Your task to perform on an android device: turn on sleep mode Image 0: 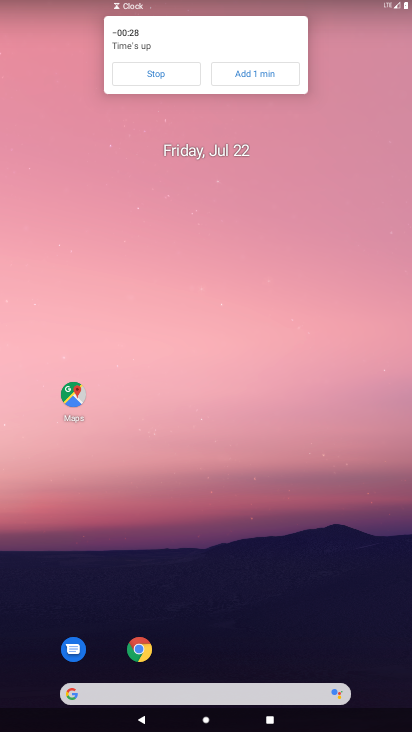
Step 0: drag from (229, 673) to (229, 161)
Your task to perform on an android device: turn on sleep mode Image 1: 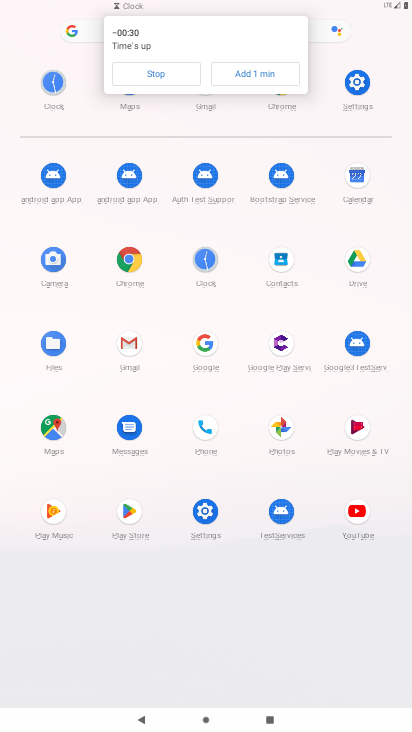
Step 1: click (362, 81)
Your task to perform on an android device: turn on sleep mode Image 2: 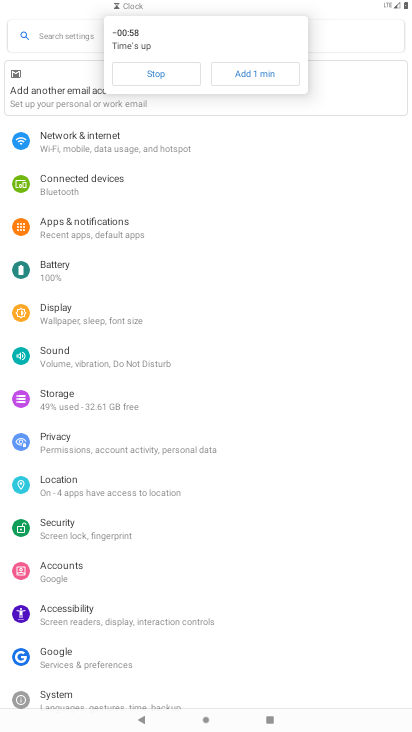
Step 2: click (70, 317)
Your task to perform on an android device: turn on sleep mode Image 3: 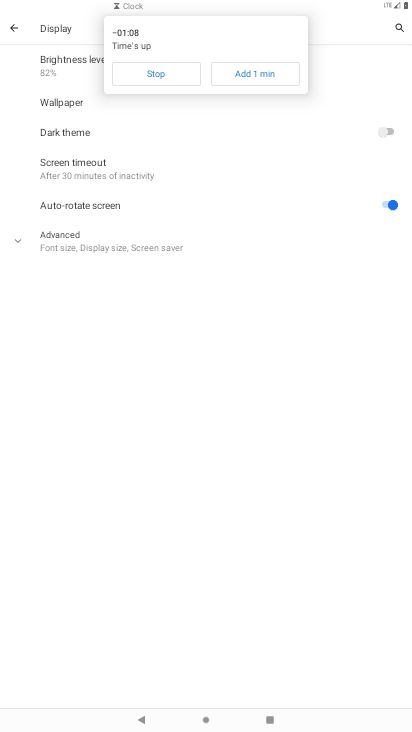
Step 3: task complete